Your task to perform on an android device: Clear the cart on costco.com. Add amazon basics triple a to the cart on costco.com Image 0: 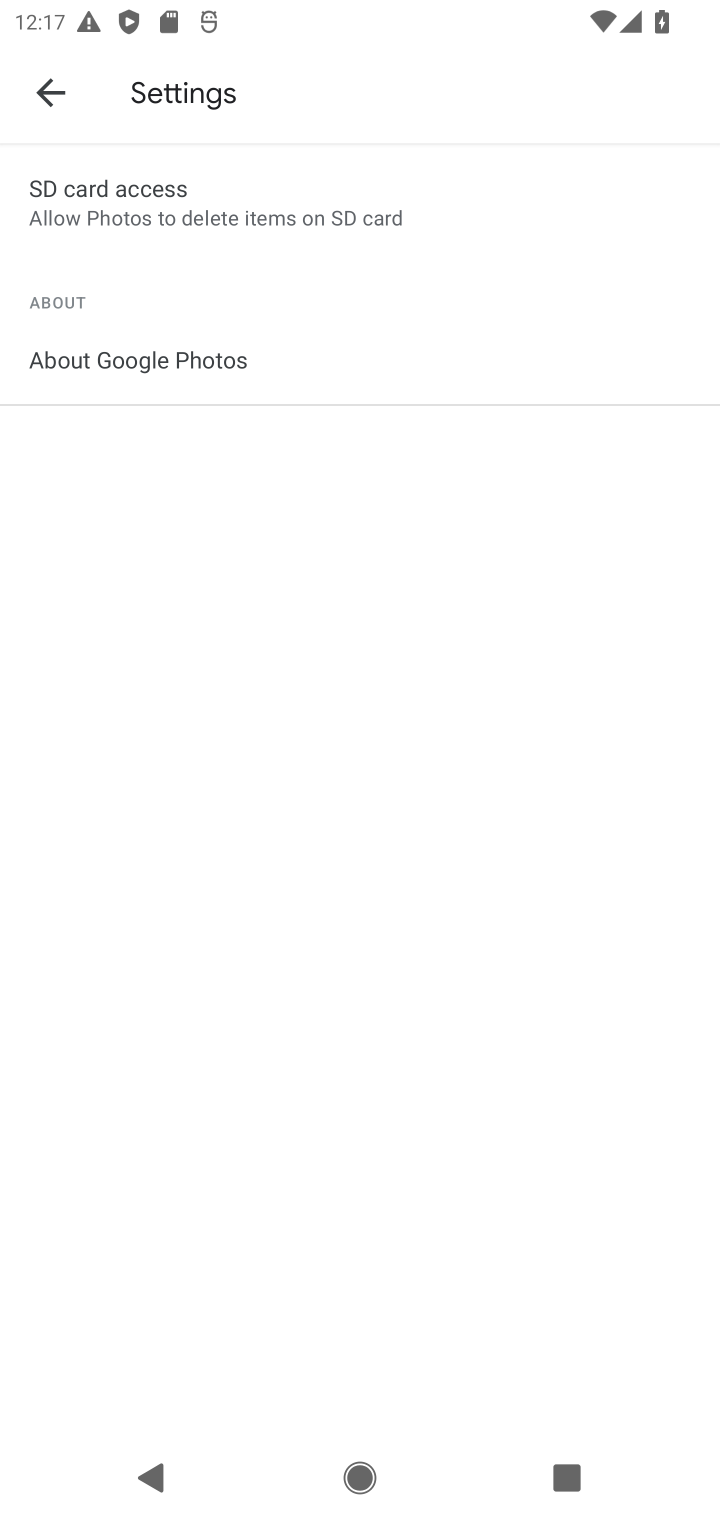
Step 0: press home button
Your task to perform on an android device: Clear the cart on costco.com. Add amazon basics triple a to the cart on costco.com Image 1: 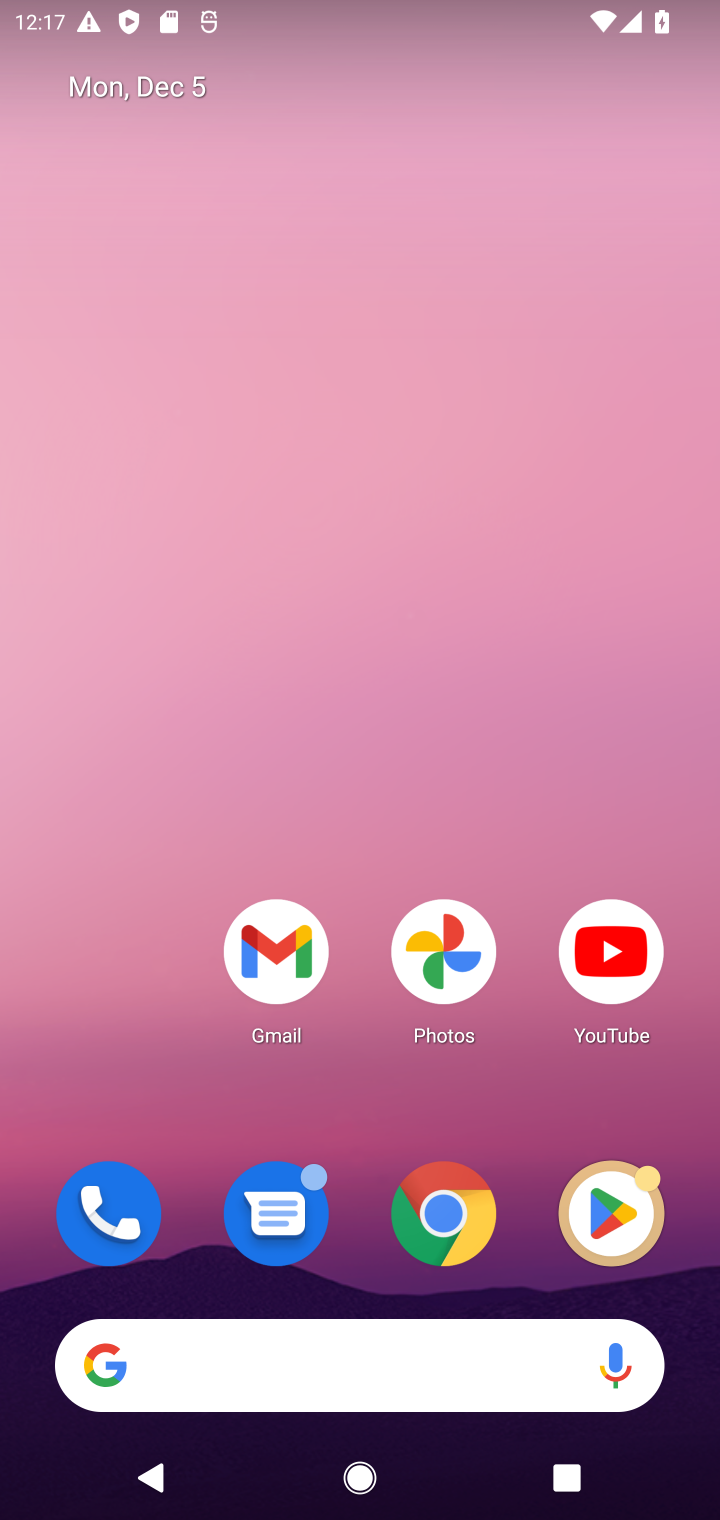
Step 1: click (447, 1239)
Your task to perform on an android device: Clear the cart on costco.com. Add amazon basics triple a to the cart on costco.com Image 2: 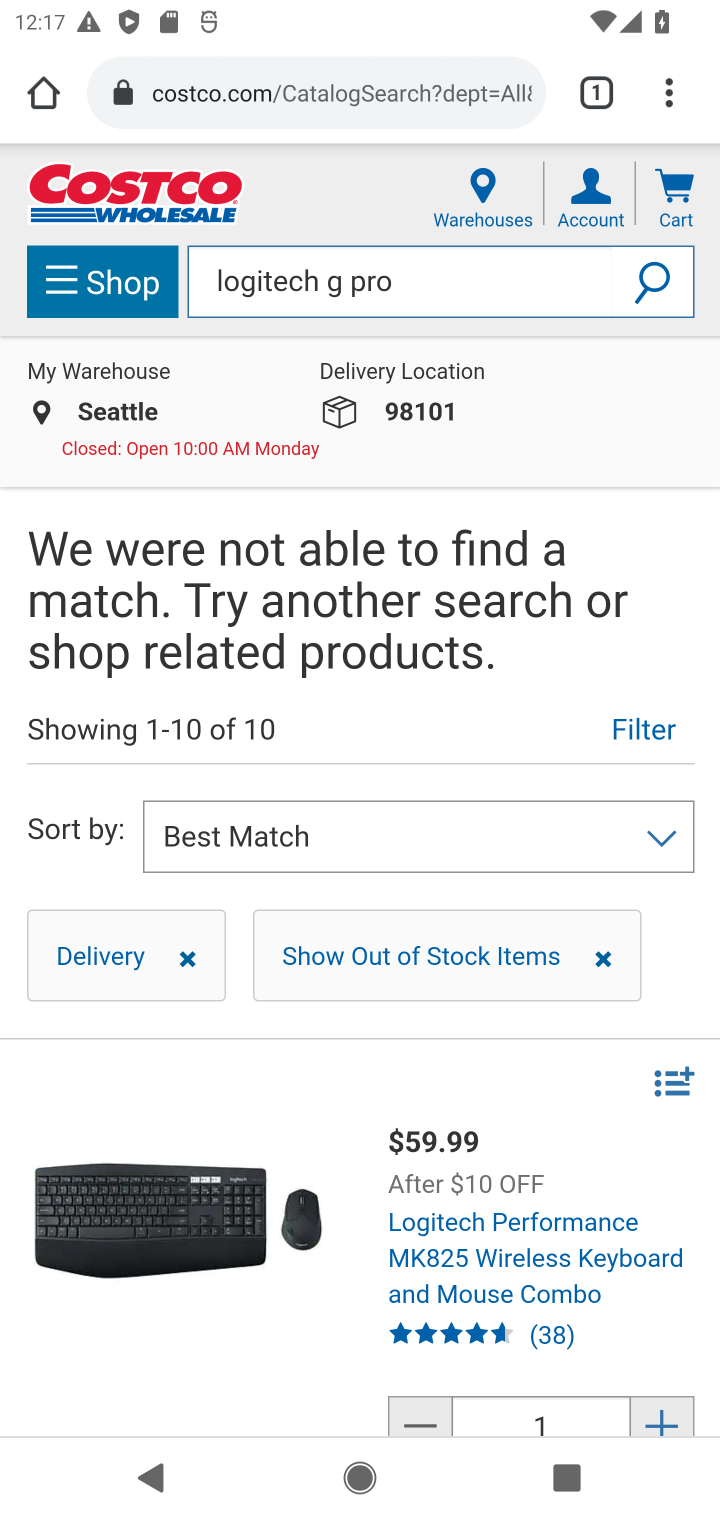
Step 2: click (668, 193)
Your task to perform on an android device: Clear the cart on costco.com. Add amazon basics triple a to the cart on costco.com Image 3: 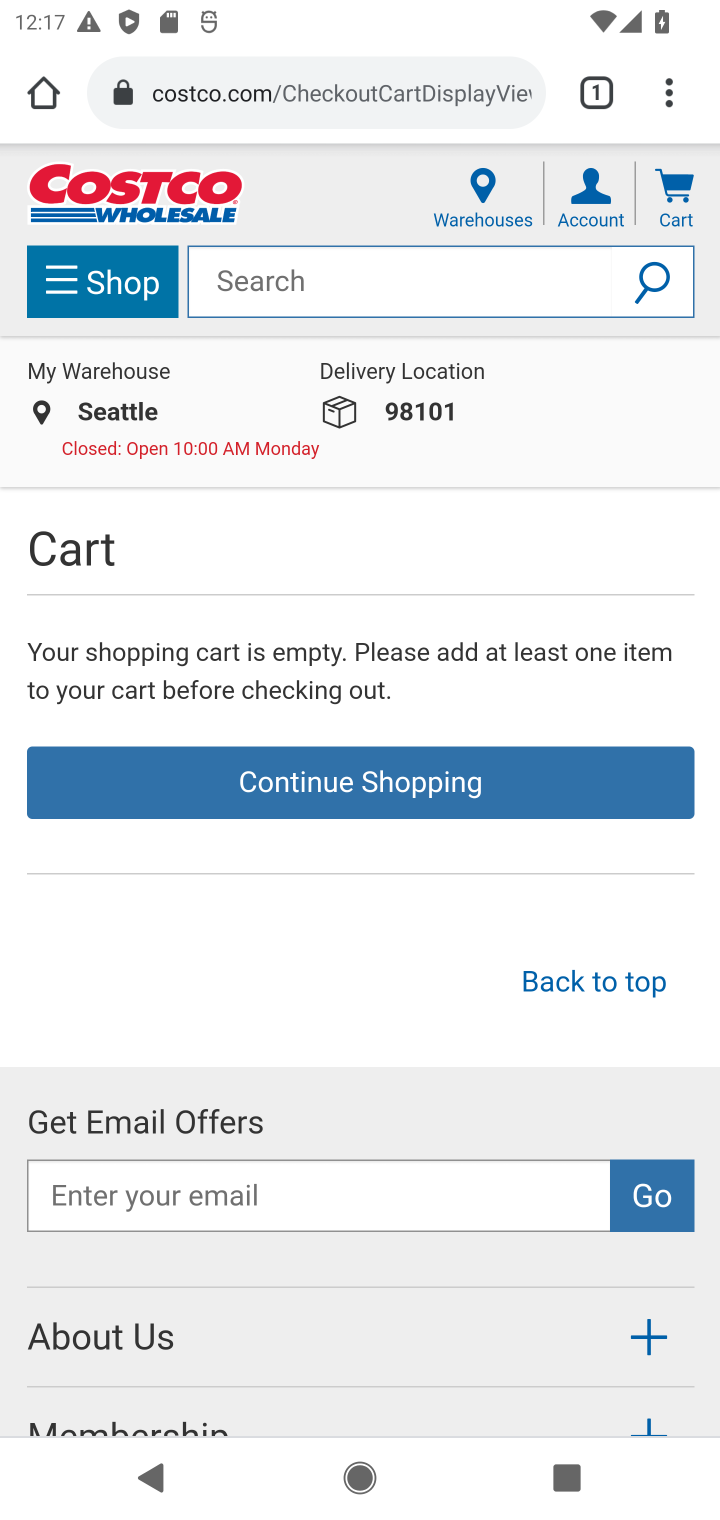
Step 3: click (273, 278)
Your task to perform on an android device: Clear the cart on costco.com. Add amazon basics triple a to the cart on costco.com Image 4: 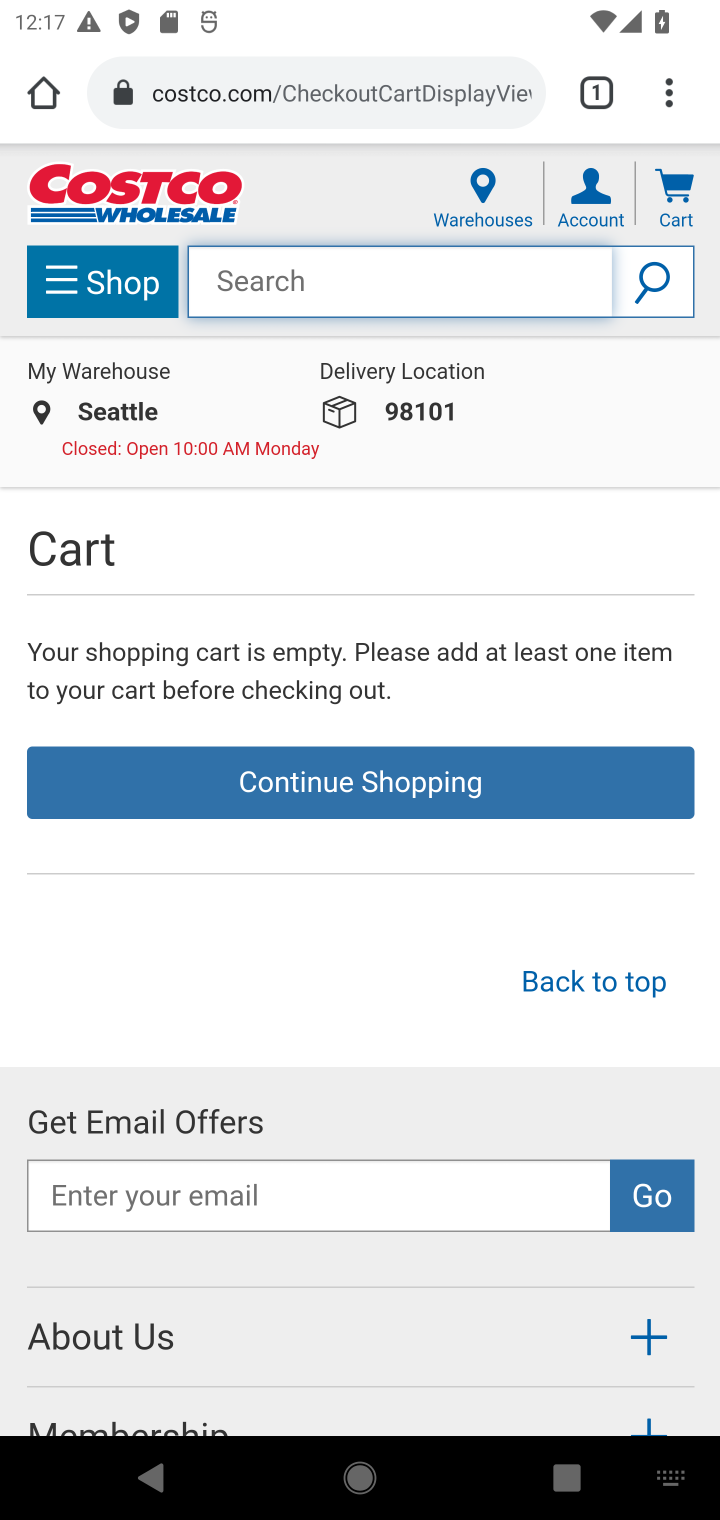
Step 4: type " amazon basics triple a"
Your task to perform on an android device: Clear the cart on costco.com. Add amazon basics triple a to the cart on costco.com Image 5: 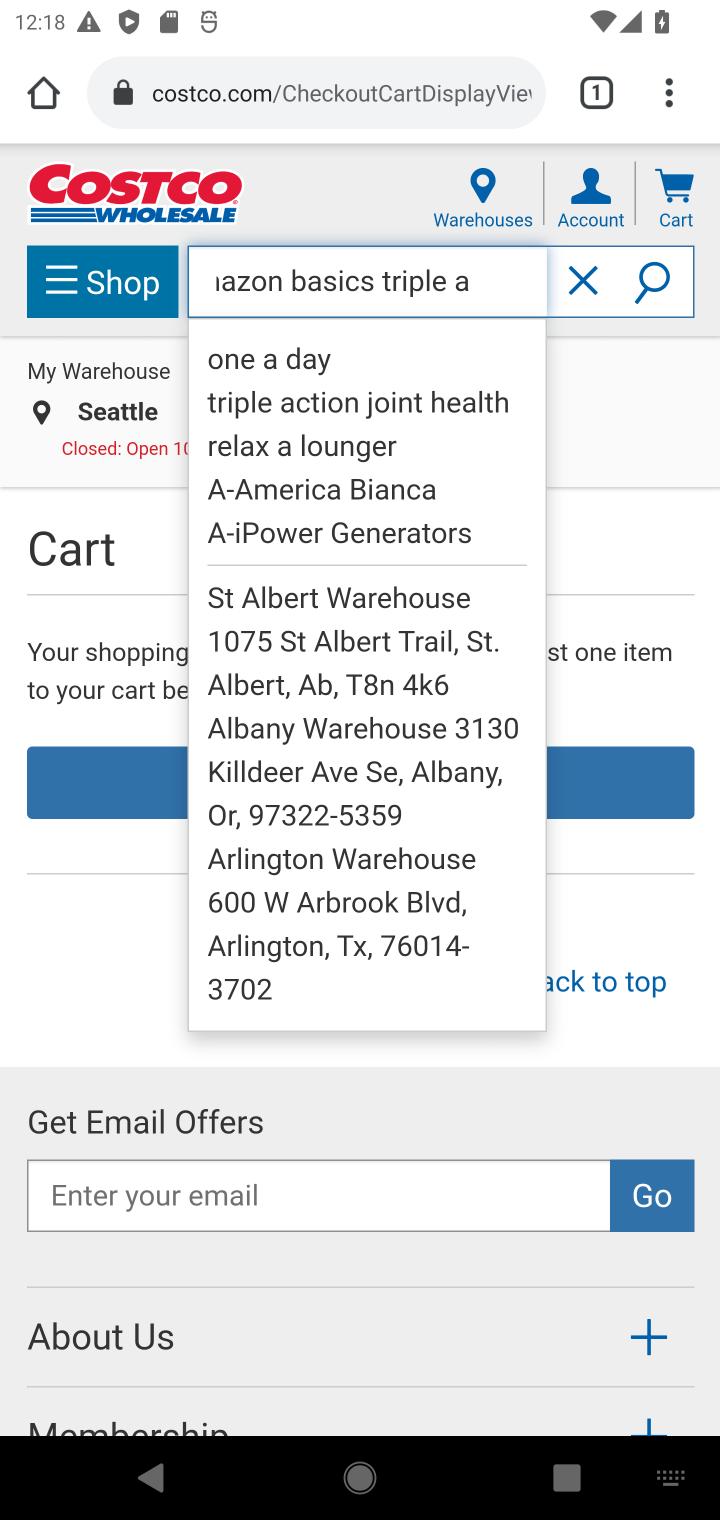
Step 5: click (660, 272)
Your task to perform on an android device: Clear the cart on costco.com. Add amazon basics triple a to the cart on costco.com Image 6: 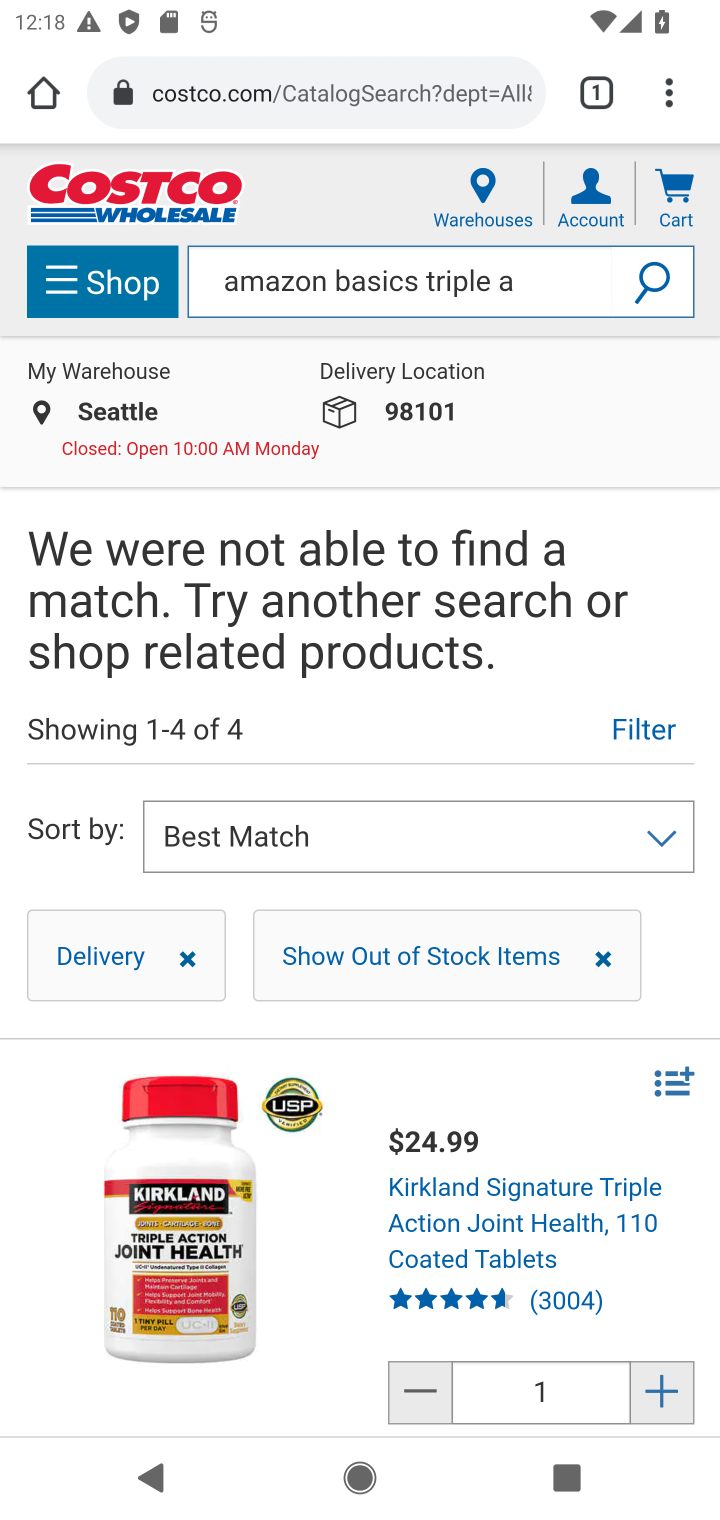
Step 6: task complete